Your task to perform on an android device: change notification settings in the gmail app Image 0: 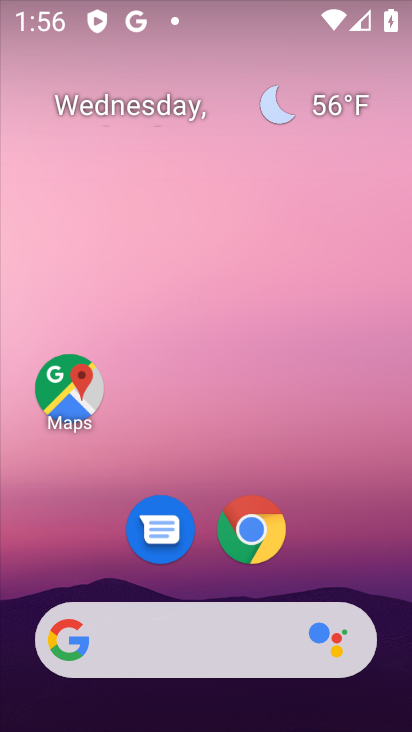
Step 0: drag from (331, 544) to (294, 109)
Your task to perform on an android device: change notification settings in the gmail app Image 1: 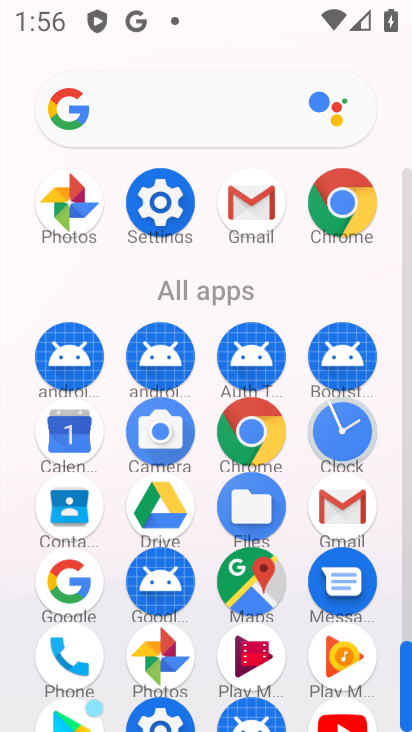
Step 1: click (262, 200)
Your task to perform on an android device: change notification settings in the gmail app Image 2: 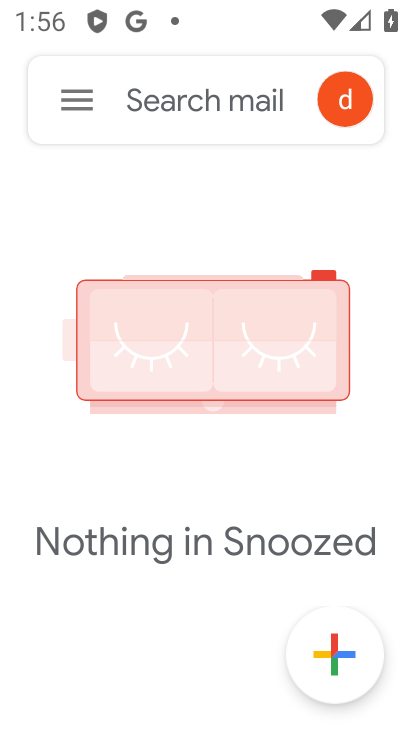
Step 2: click (43, 101)
Your task to perform on an android device: change notification settings in the gmail app Image 3: 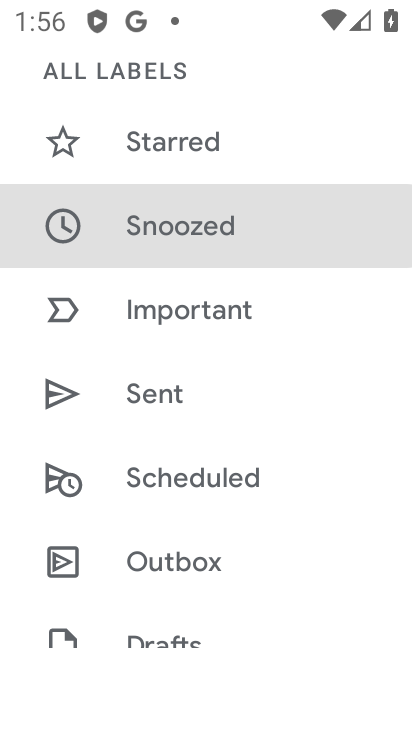
Step 3: drag from (242, 436) to (284, 17)
Your task to perform on an android device: change notification settings in the gmail app Image 4: 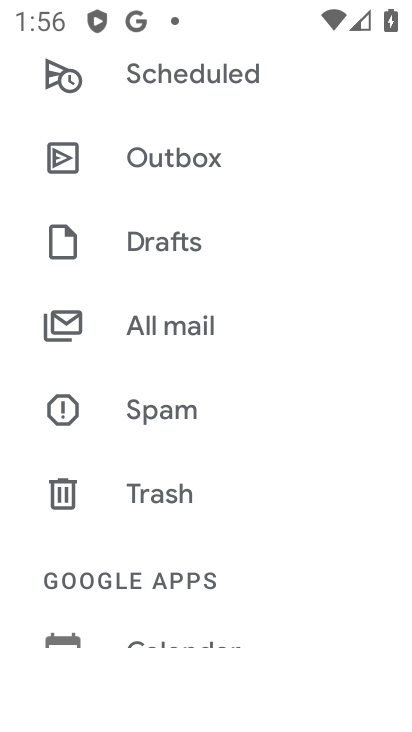
Step 4: drag from (250, 481) to (247, 24)
Your task to perform on an android device: change notification settings in the gmail app Image 5: 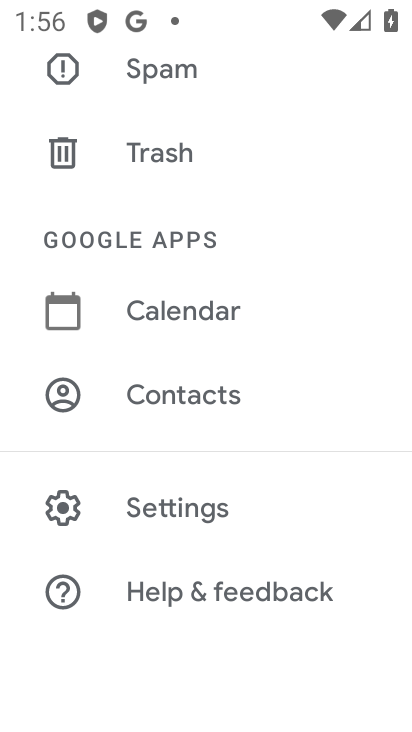
Step 5: click (189, 496)
Your task to perform on an android device: change notification settings in the gmail app Image 6: 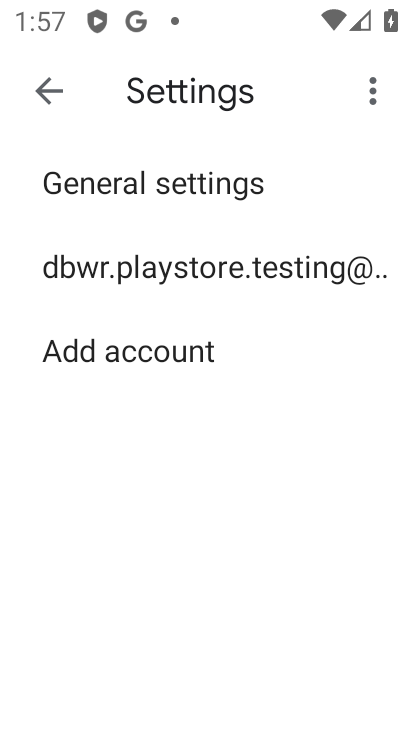
Step 6: click (205, 262)
Your task to perform on an android device: change notification settings in the gmail app Image 7: 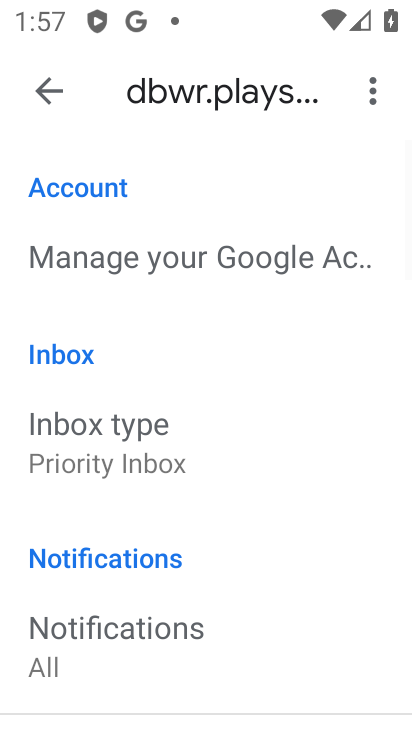
Step 7: drag from (240, 524) to (235, 177)
Your task to perform on an android device: change notification settings in the gmail app Image 8: 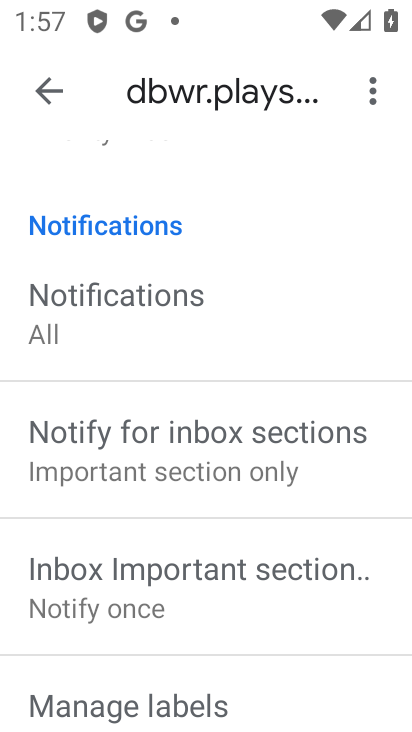
Step 8: click (176, 692)
Your task to perform on an android device: change notification settings in the gmail app Image 9: 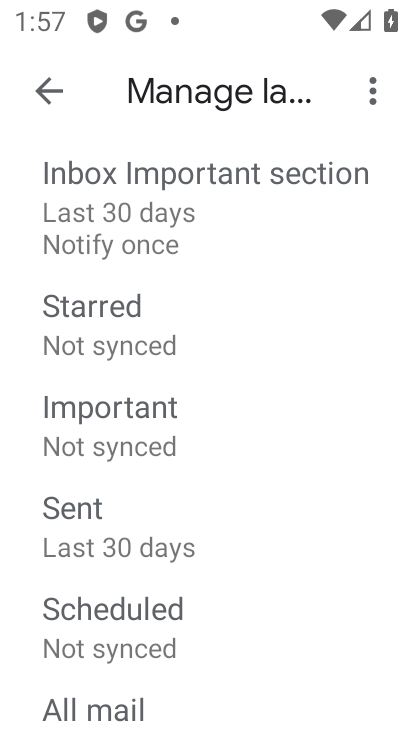
Step 9: click (73, 97)
Your task to perform on an android device: change notification settings in the gmail app Image 10: 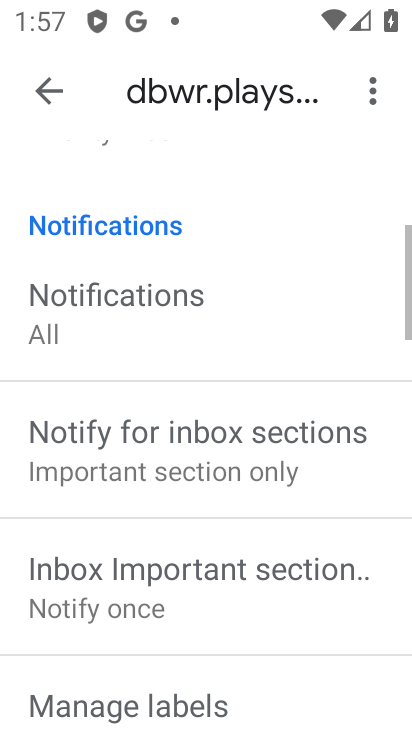
Step 10: drag from (208, 652) to (216, 414)
Your task to perform on an android device: change notification settings in the gmail app Image 11: 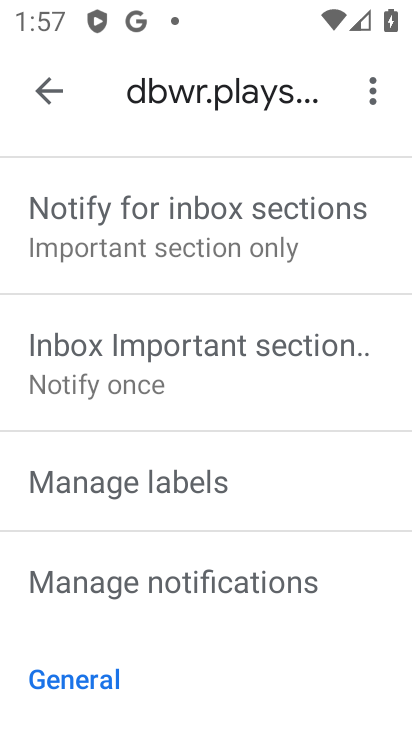
Step 11: click (193, 601)
Your task to perform on an android device: change notification settings in the gmail app Image 12: 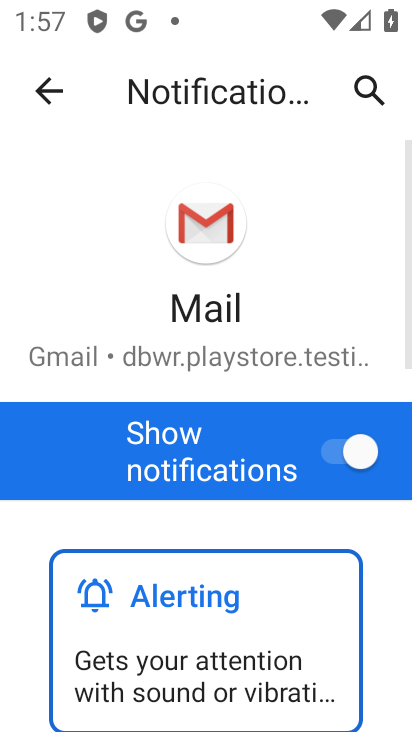
Step 12: click (350, 453)
Your task to perform on an android device: change notification settings in the gmail app Image 13: 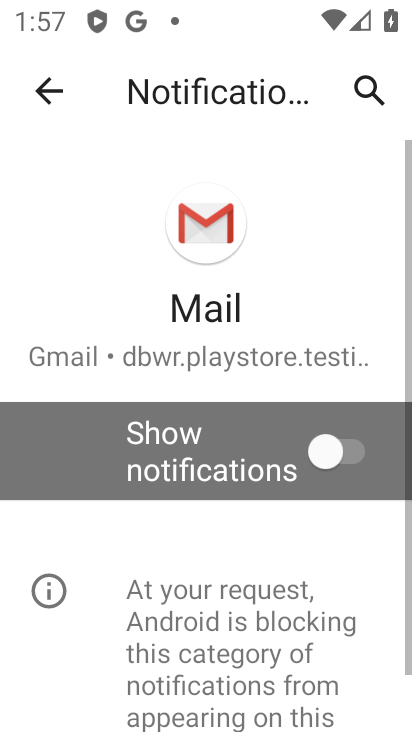
Step 13: task complete